Your task to perform on an android device: What's on my calendar today? Image 0: 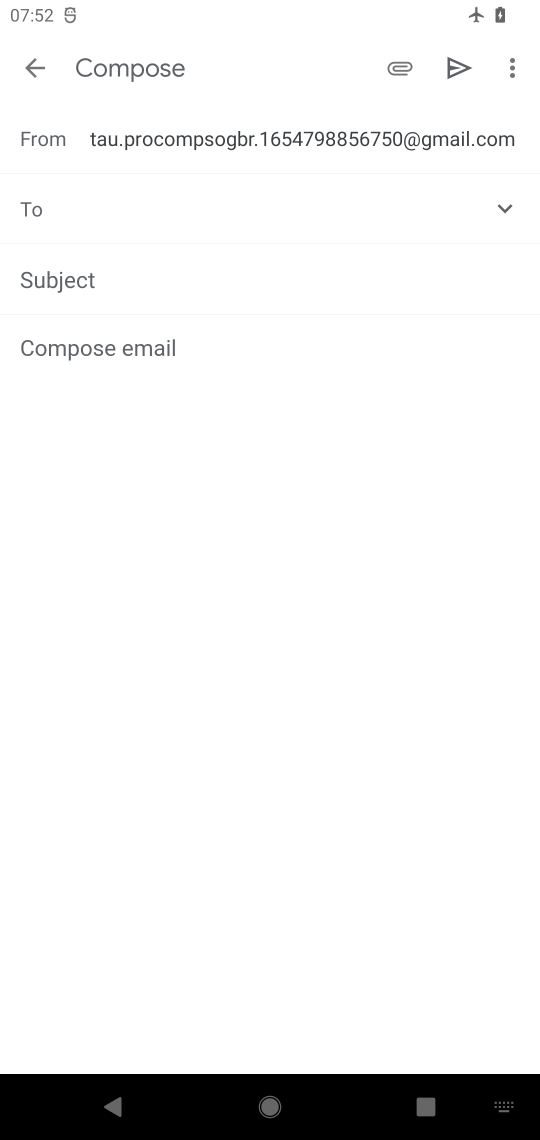
Step 0: press home button
Your task to perform on an android device: What's on my calendar today? Image 1: 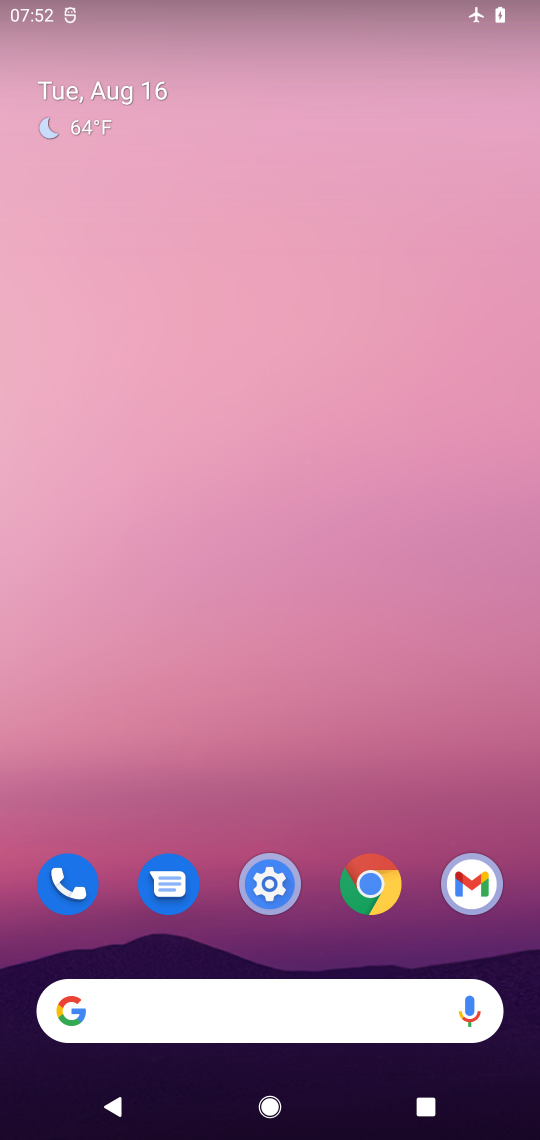
Step 1: drag from (325, 816) to (265, 131)
Your task to perform on an android device: What's on my calendar today? Image 2: 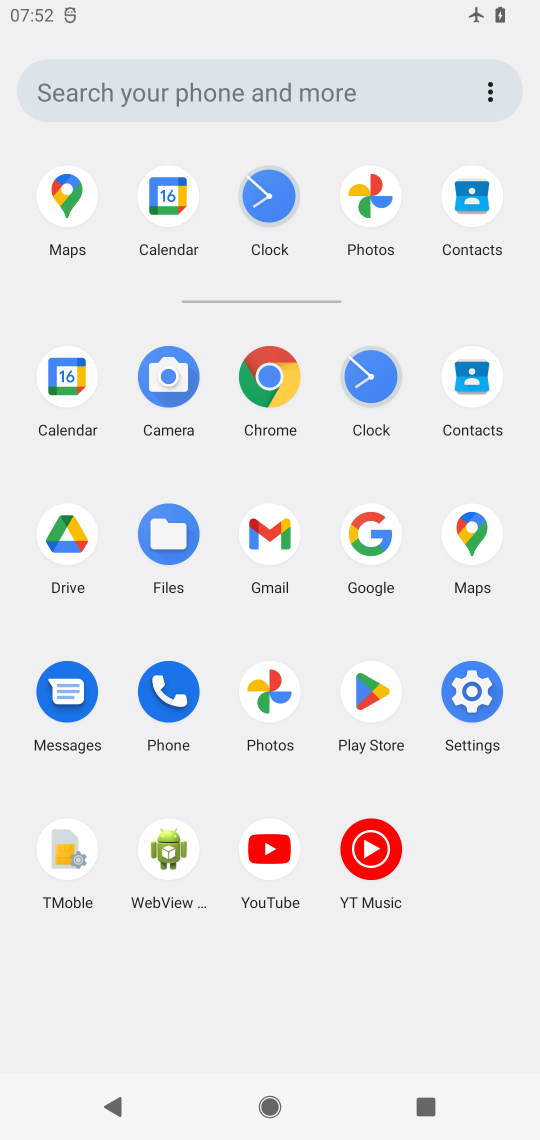
Step 2: click (57, 385)
Your task to perform on an android device: What's on my calendar today? Image 3: 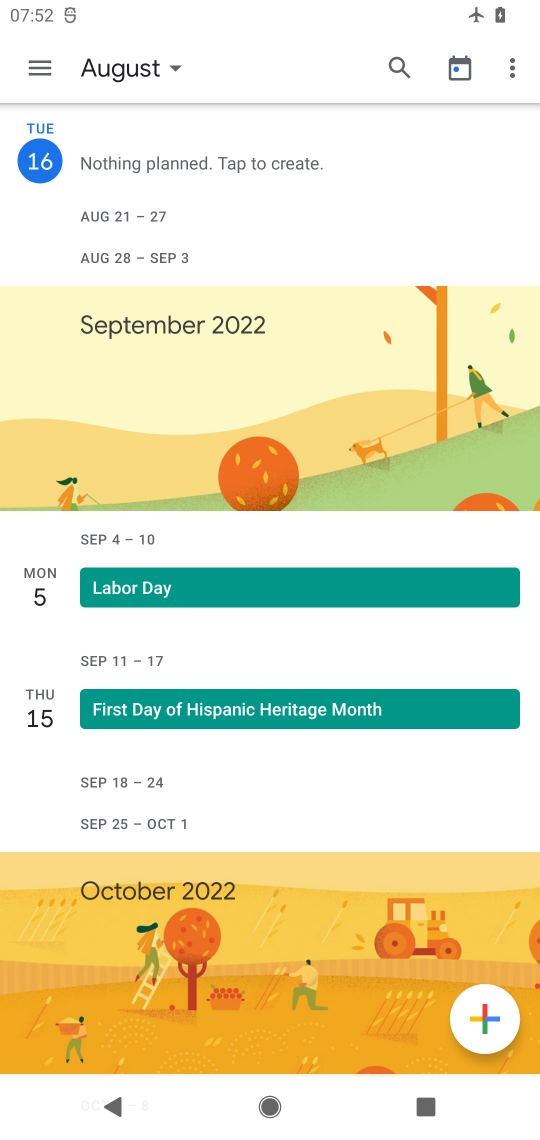
Step 3: task complete